Your task to perform on an android device: show emergency info Image 0: 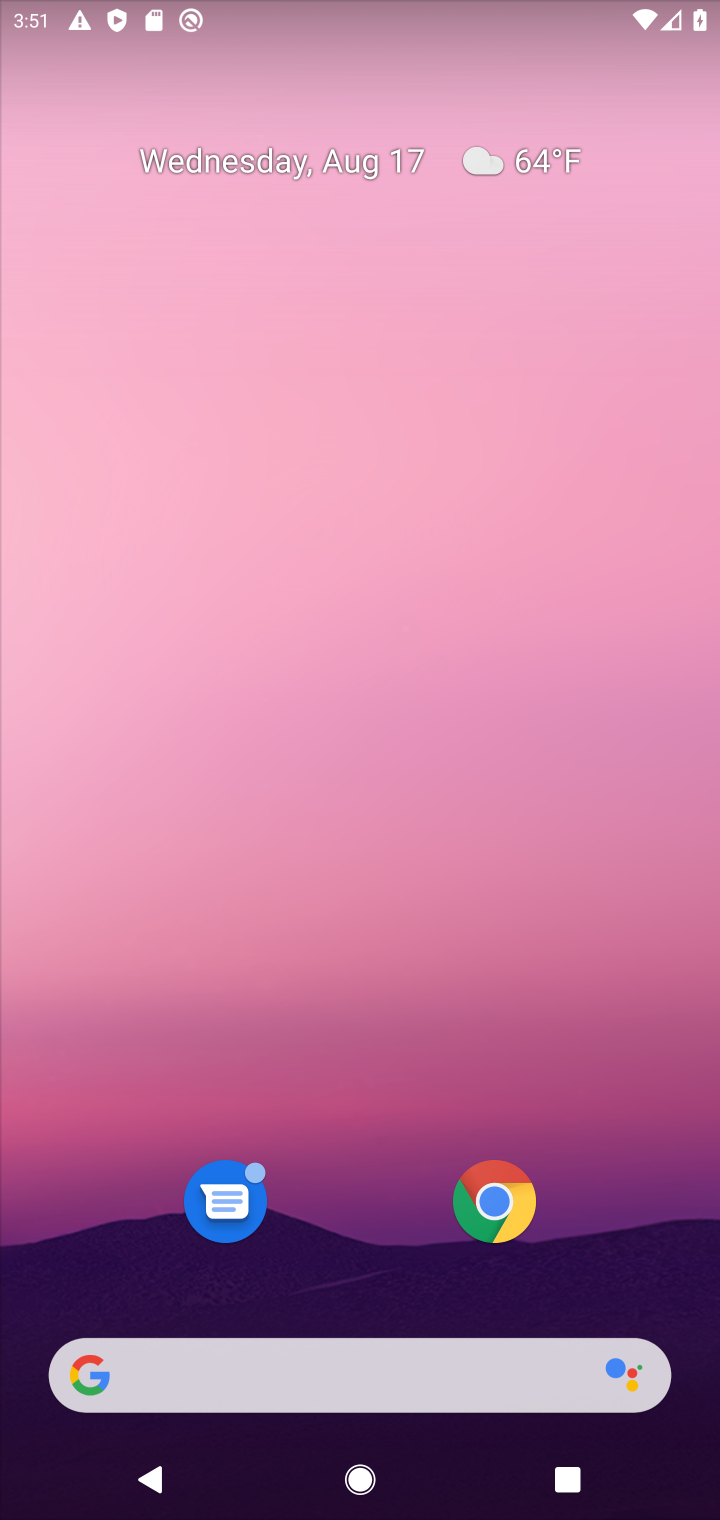
Step 0: drag from (360, 1193) to (478, 34)
Your task to perform on an android device: show emergency info Image 1: 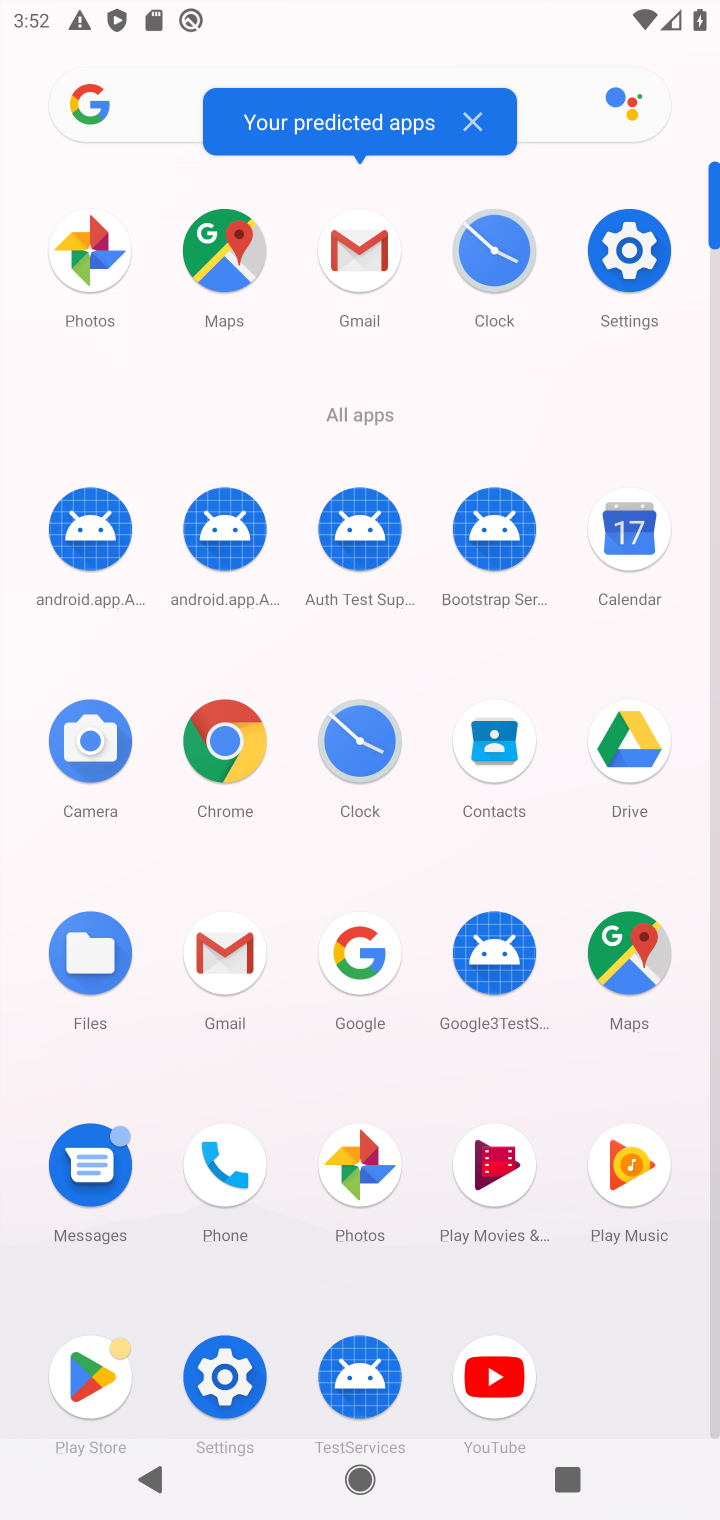
Step 1: click (228, 1377)
Your task to perform on an android device: show emergency info Image 2: 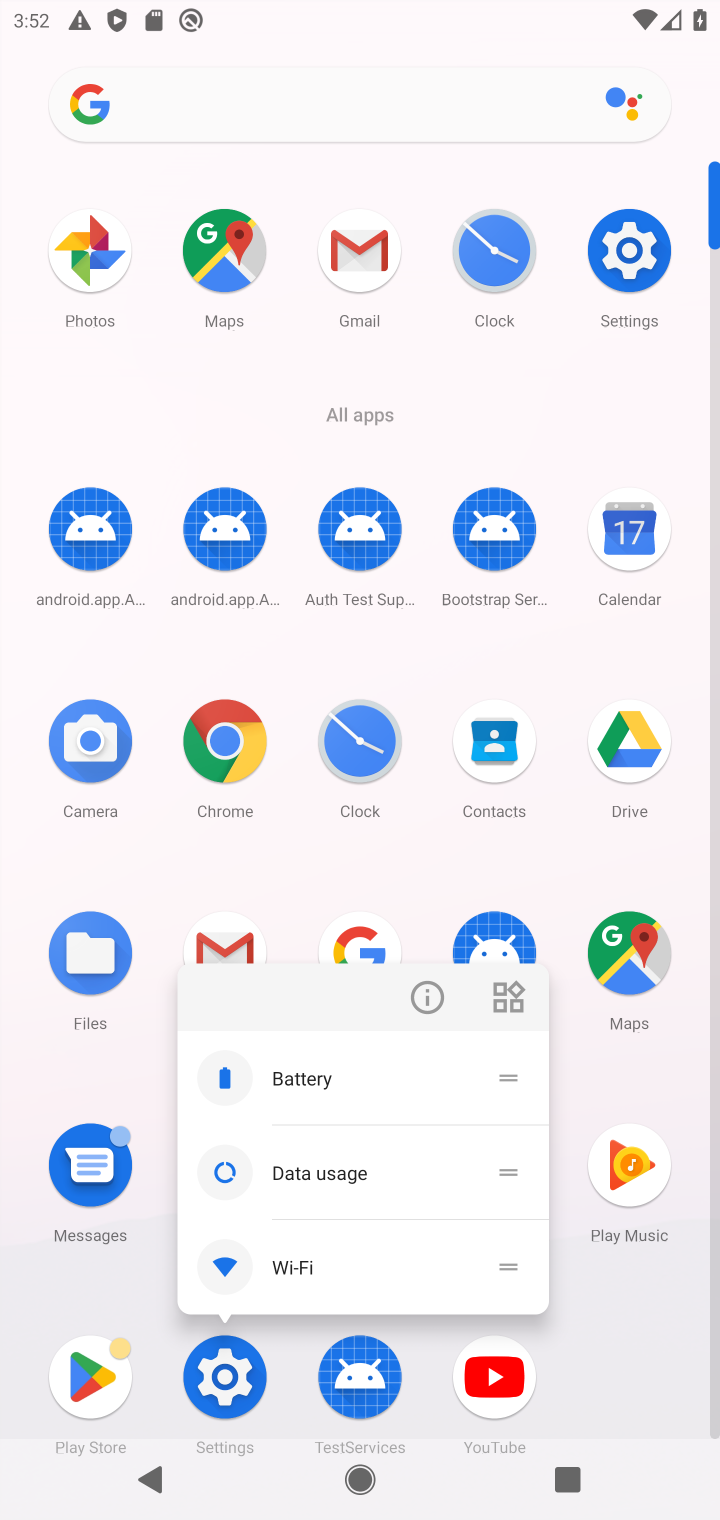
Step 2: click (248, 1365)
Your task to perform on an android device: show emergency info Image 3: 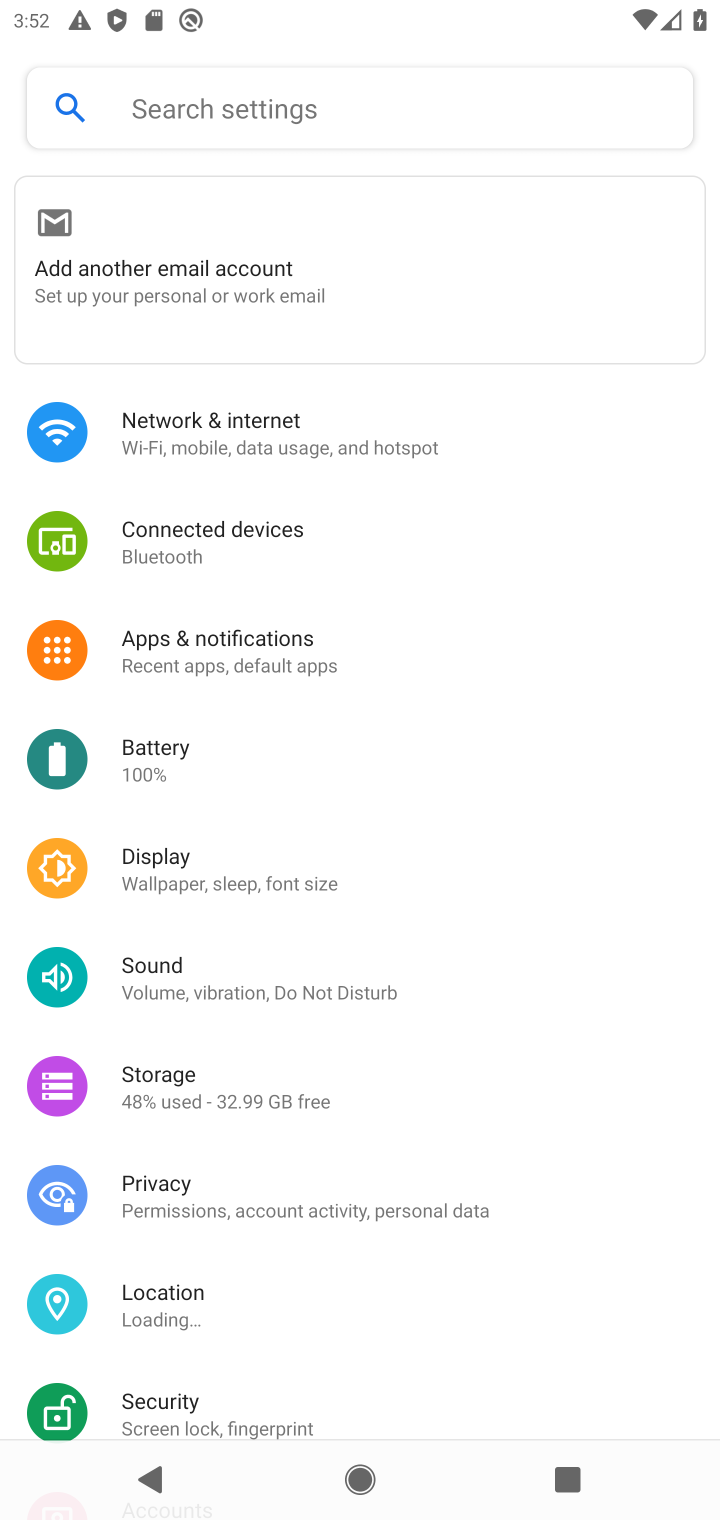
Step 3: drag from (310, 1221) to (375, 736)
Your task to perform on an android device: show emergency info Image 4: 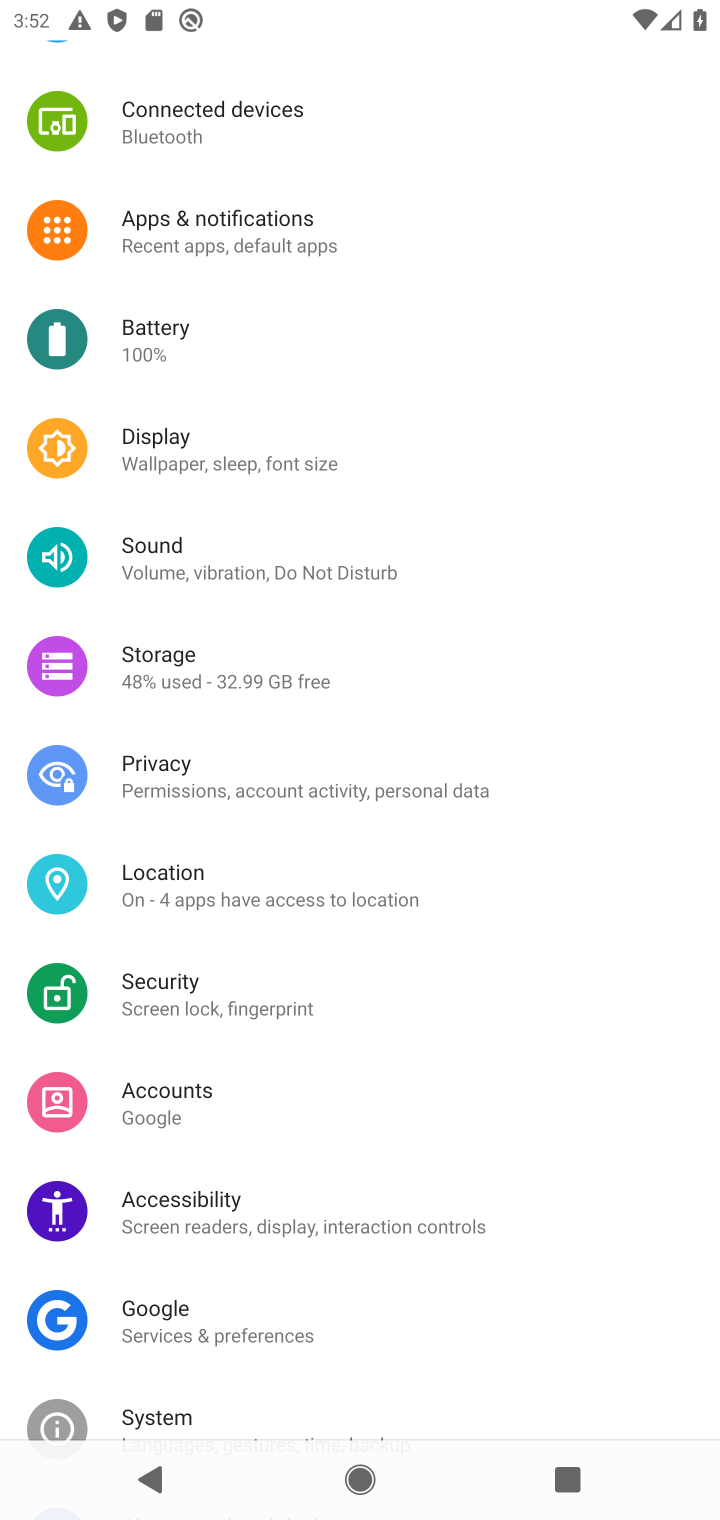
Step 4: drag from (231, 1346) to (372, 380)
Your task to perform on an android device: show emergency info Image 5: 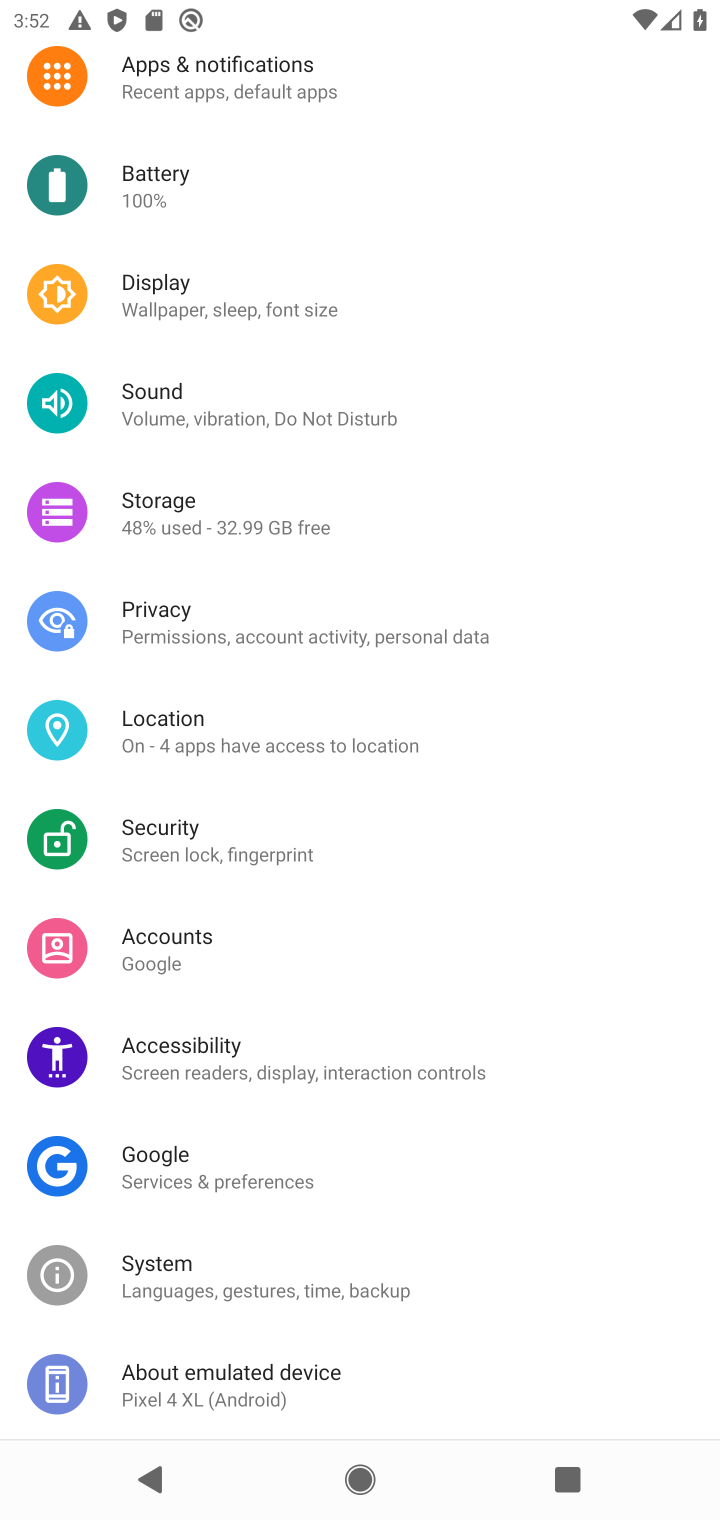
Step 5: click (238, 1380)
Your task to perform on an android device: show emergency info Image 6: 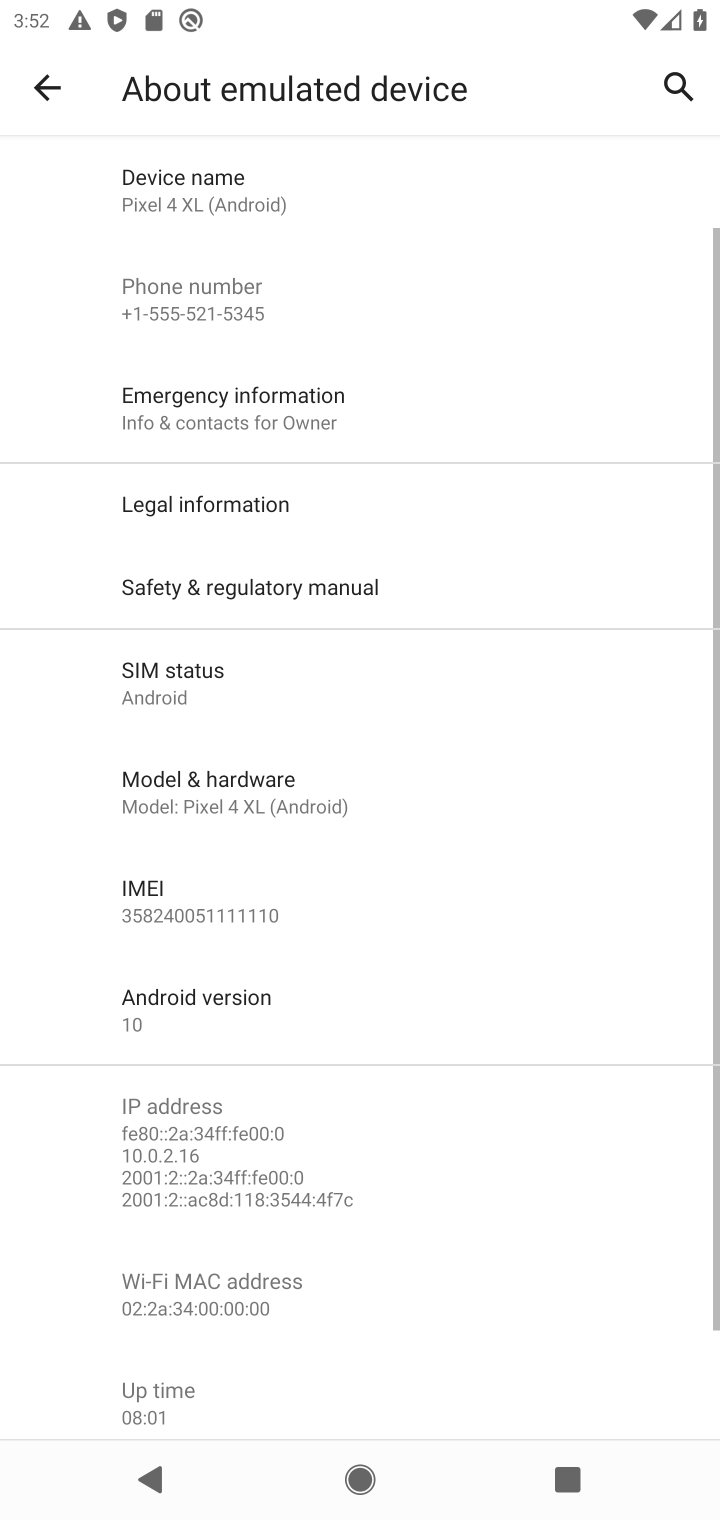
Step 6: click (231, 420)
Your task to perform on an android device: show emergency info Image 7: 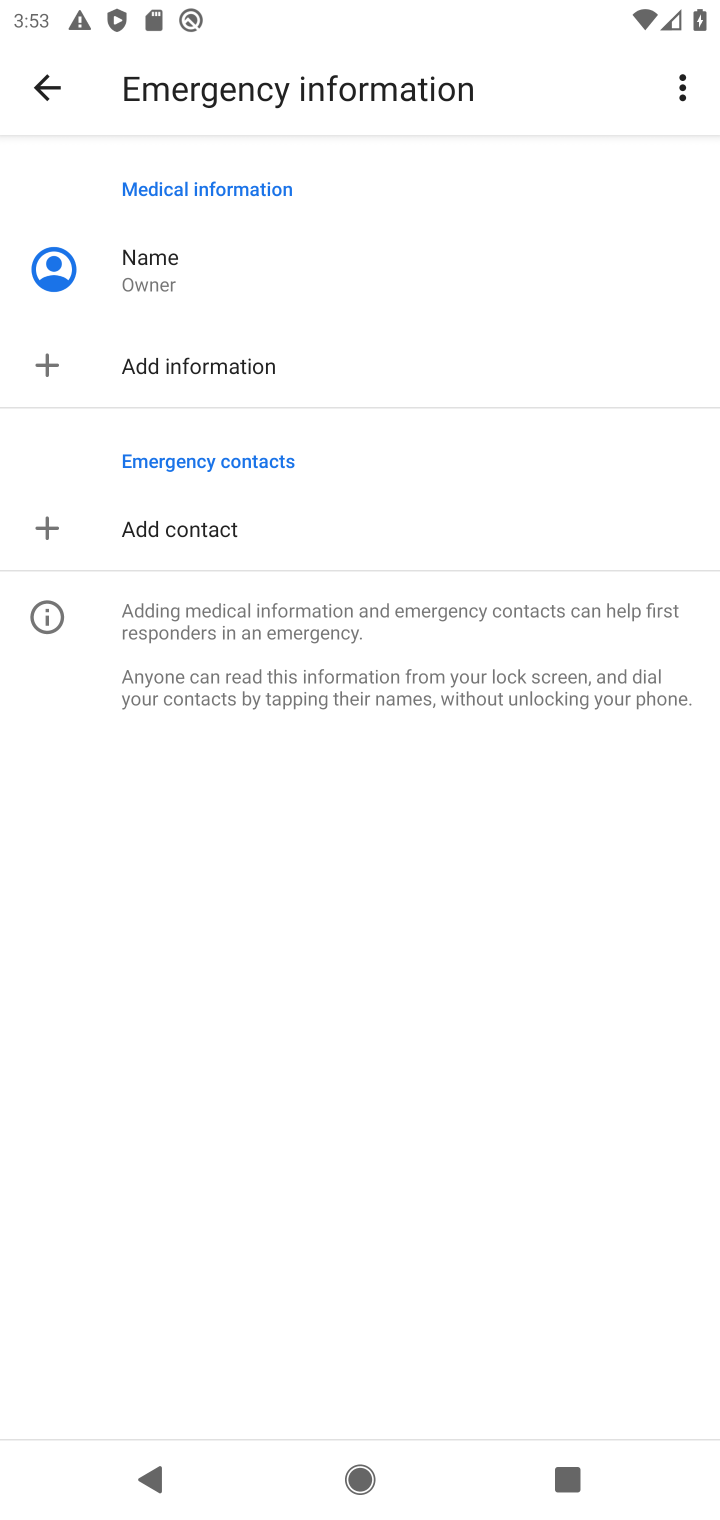
Step 7: task complete